Your task to perform on an android device: open app "Google Sheets" (install if not already installed) Image 0: 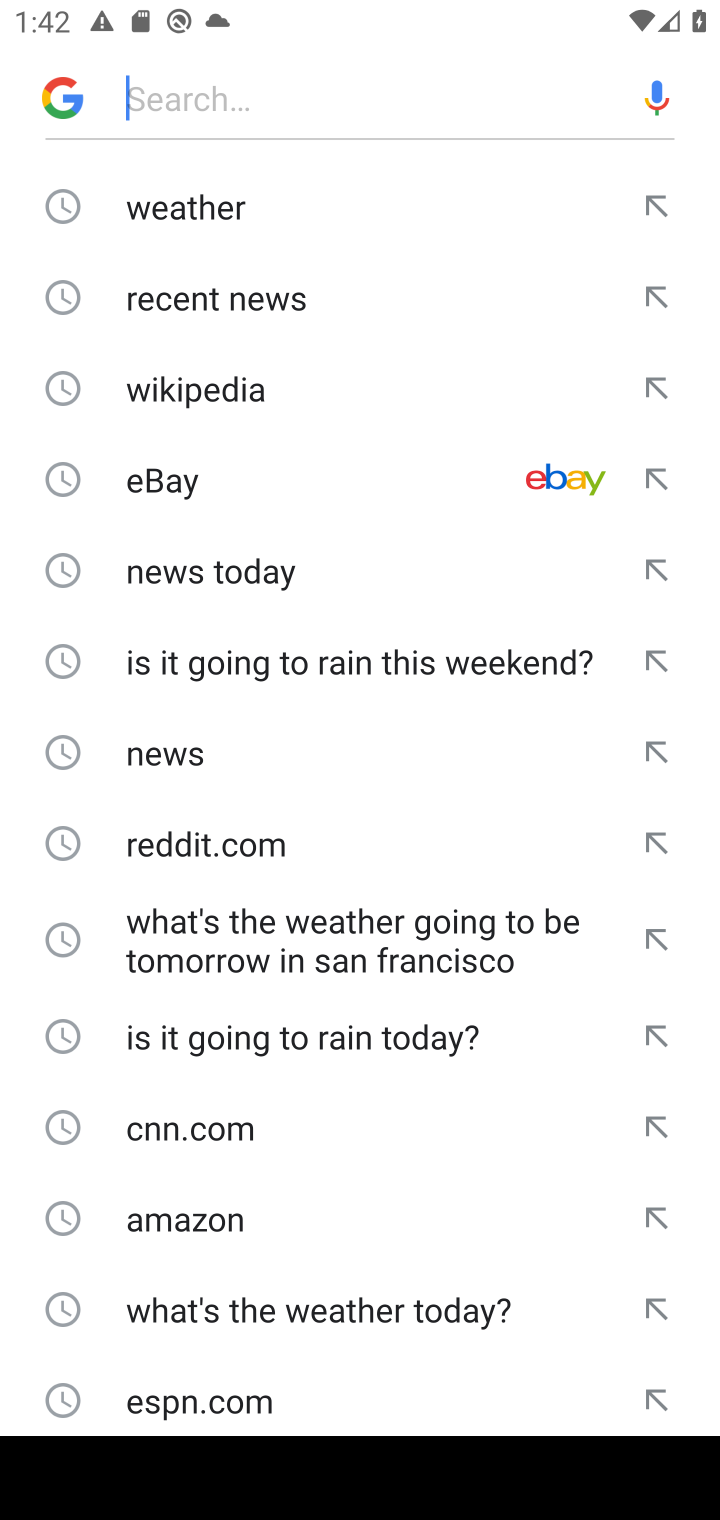
Step 0: press home button
Your task to perform on an android device: open app "Google Sheets" (install if not already installed) Image 1: 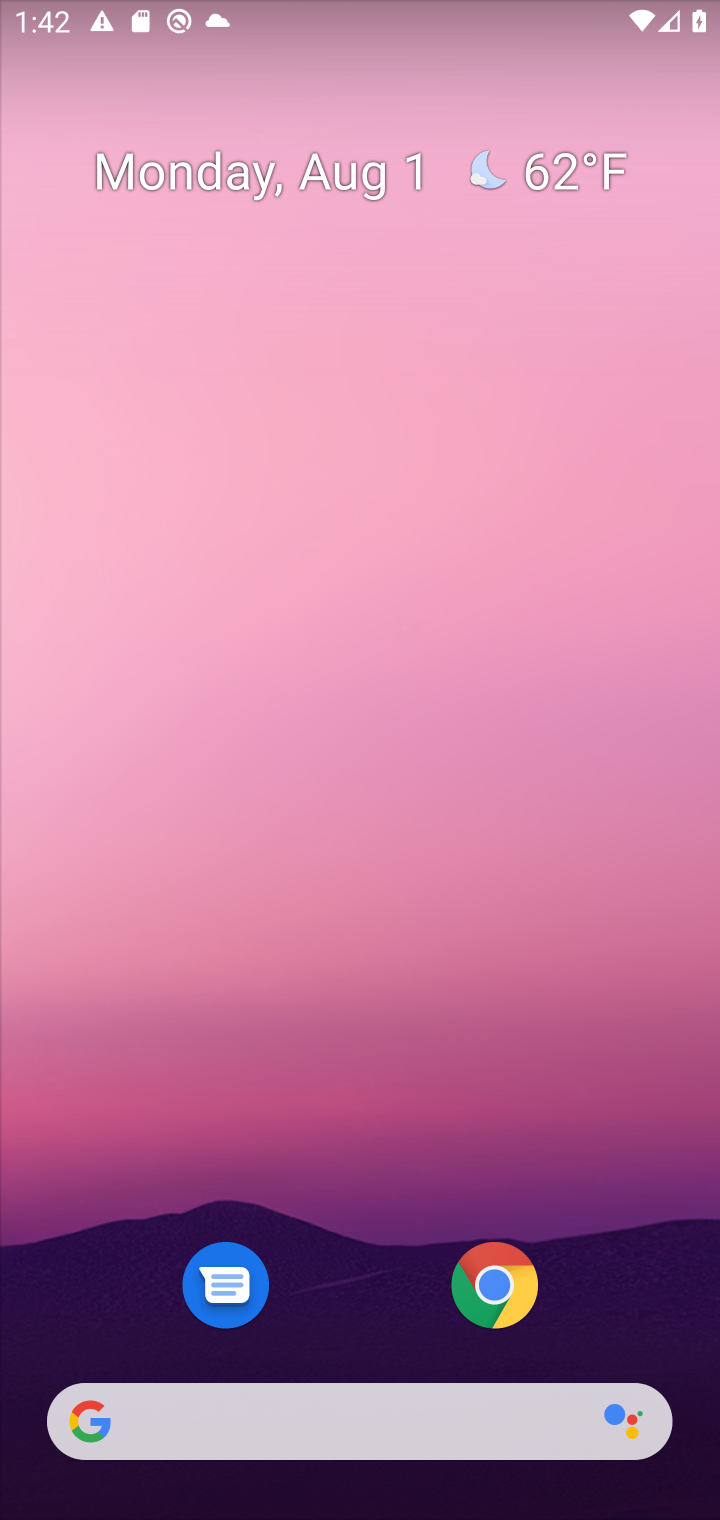
Step 1: drag from (296, 1029) to (229, 0)
Your task to perform on an android device: open app "Google Sheets" (install if not already installed) Image 2: 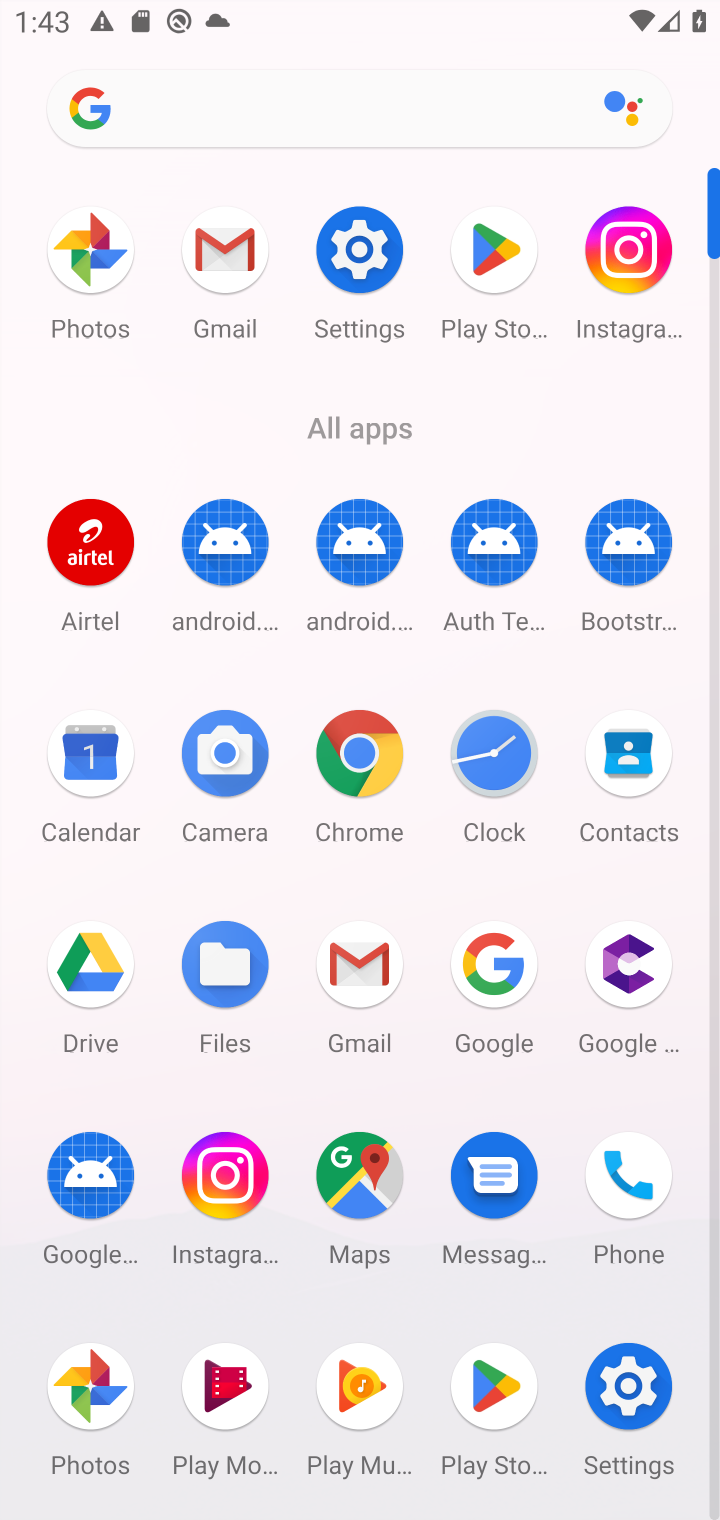
Step 2: click (494, 256)
Your task to perform on an android device: open app "Google Sheets" (install if not already installed) Image 3: 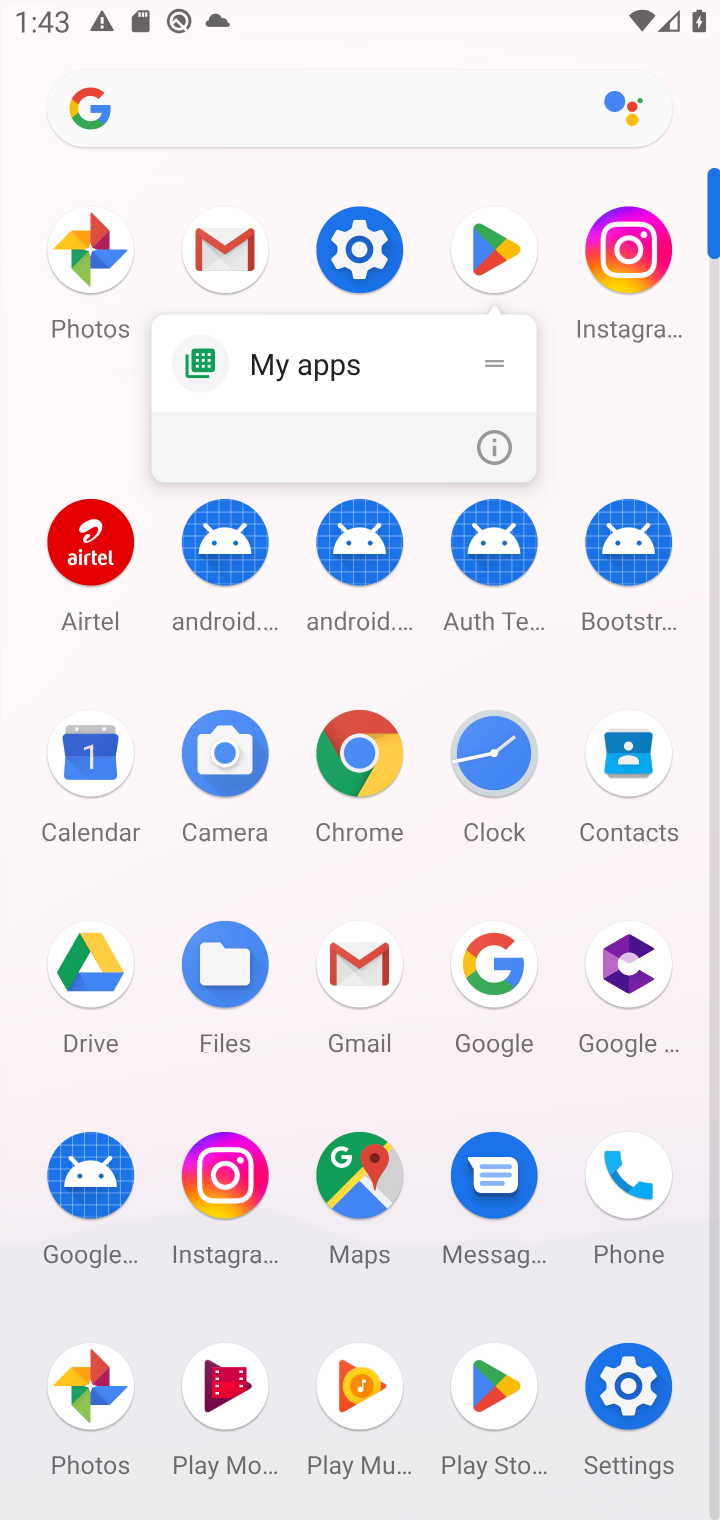
Step 3: click (470, 253)
Your task to perform on an android device: open app "Google Sheets" (install if not already installed) Image 4: 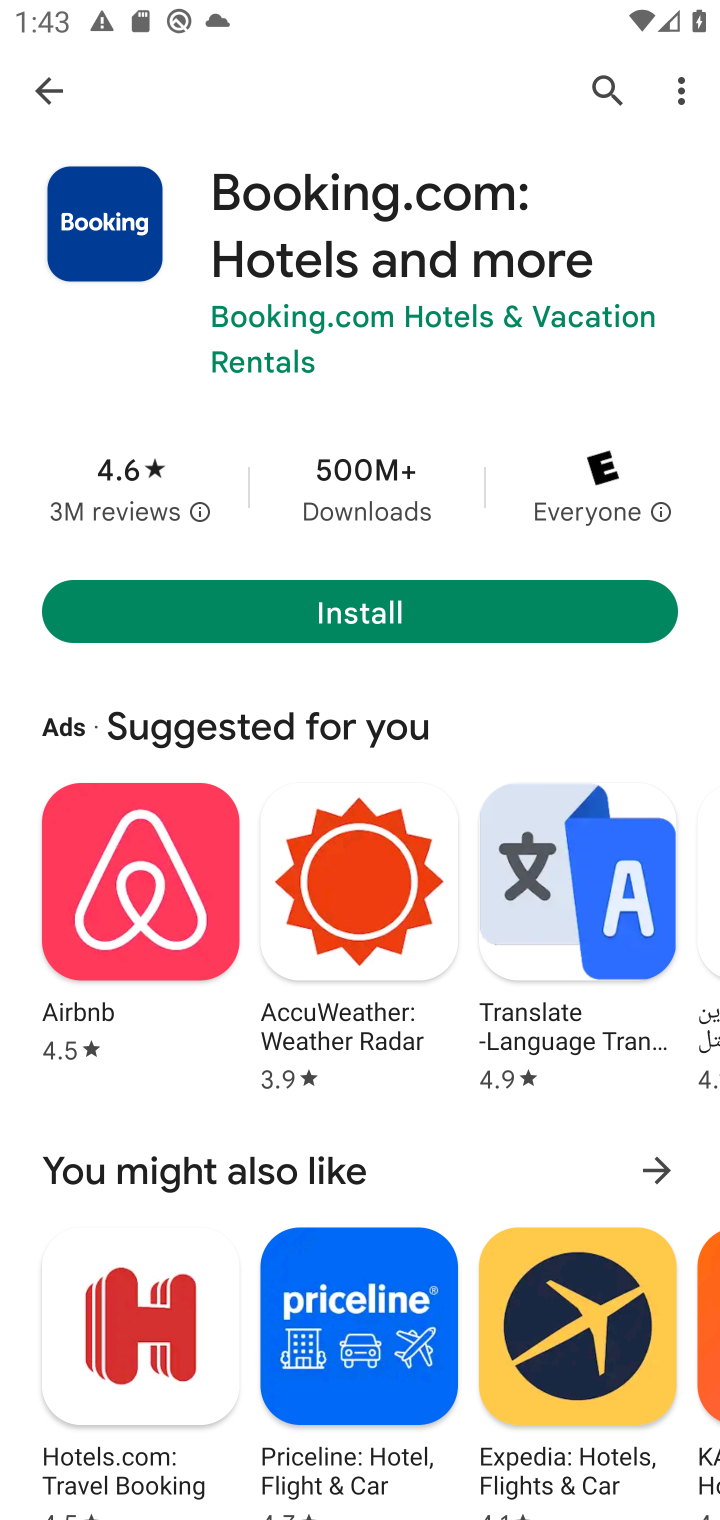
Step 4: click (606, 103)
Your task to perform on an android device: open app "Google Sheets" (install if not already installed) Image 5: 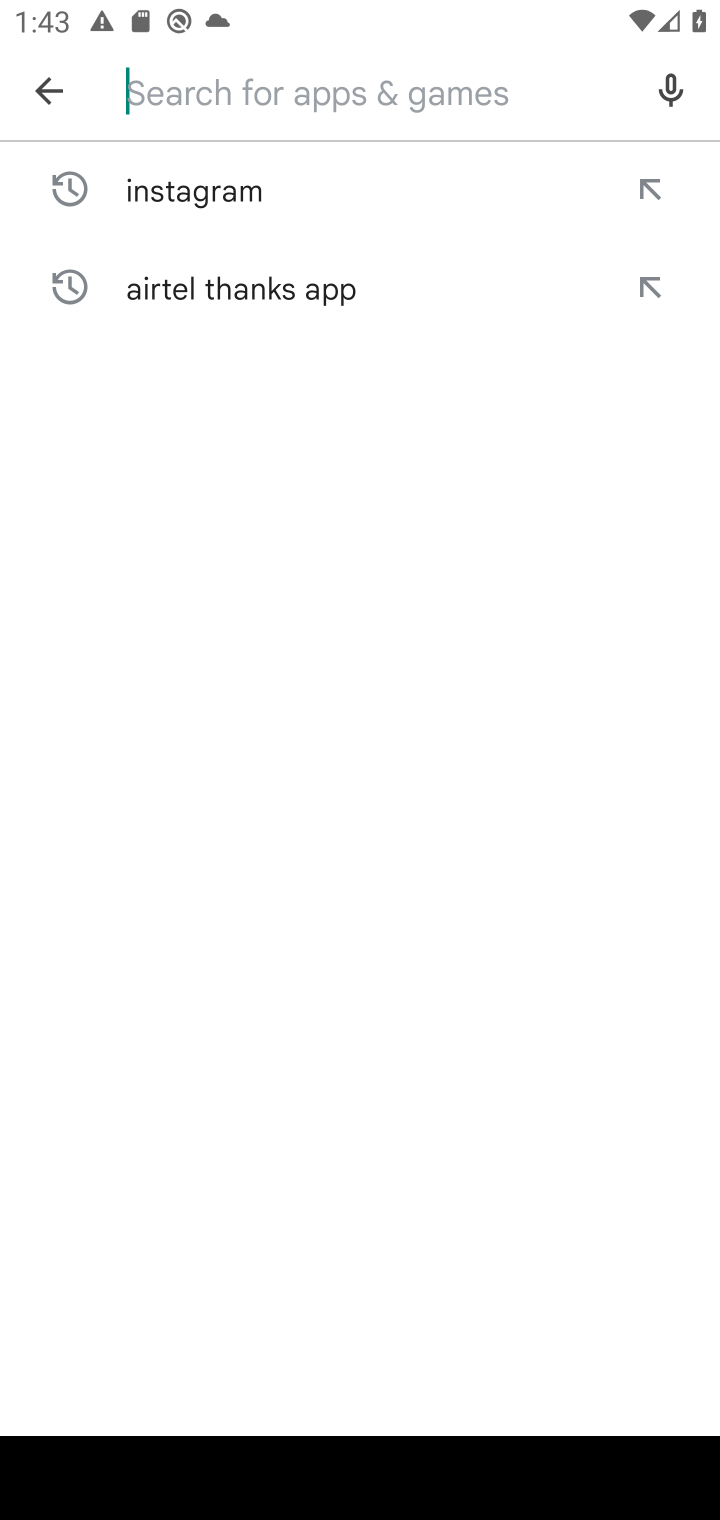
Step 5: type "Google Sheets"
Your task to perform on an android device: open app "Google Sheets" (install if not already installed) Image 6: 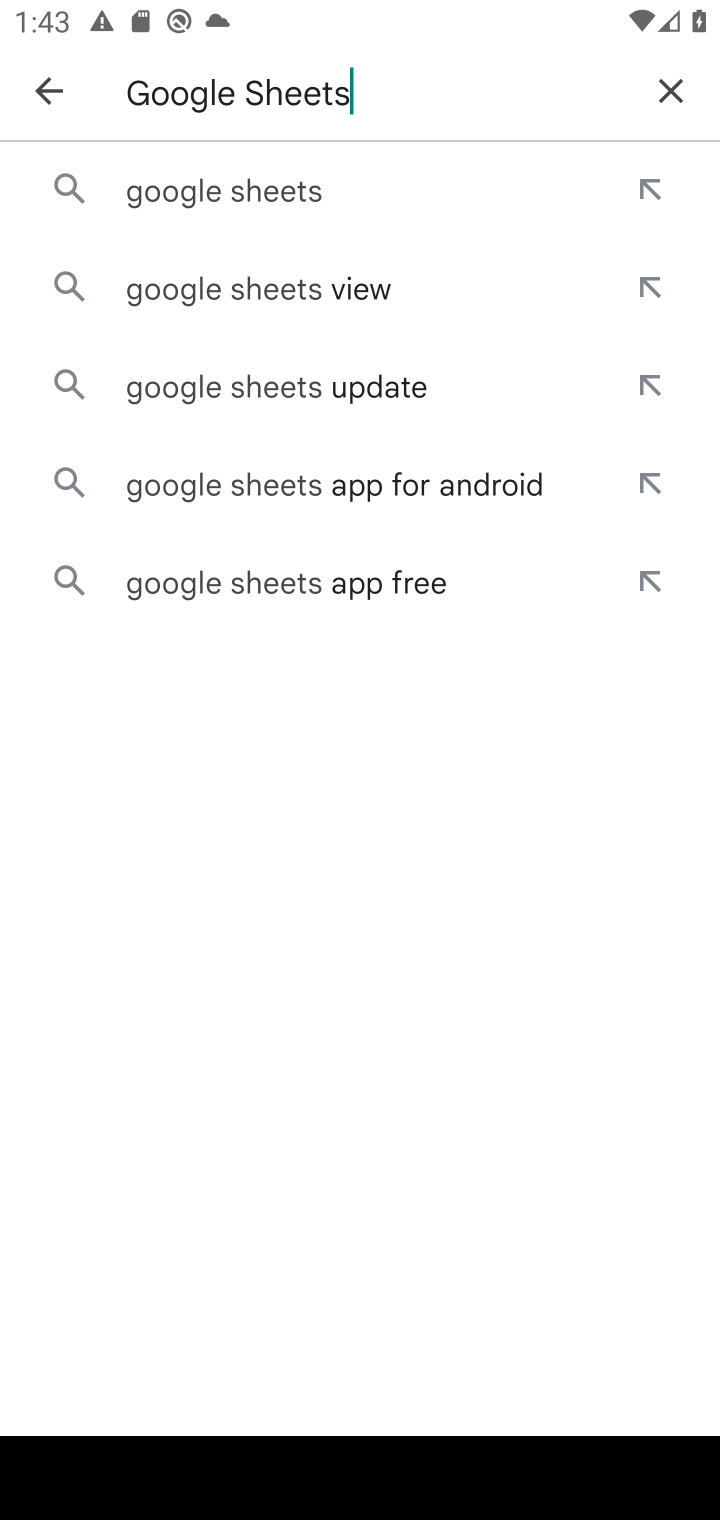
Step 6: click (283, 197)
Your task to perform on an android device: open app "Google Sheets" (install if not already installed) Image 7: 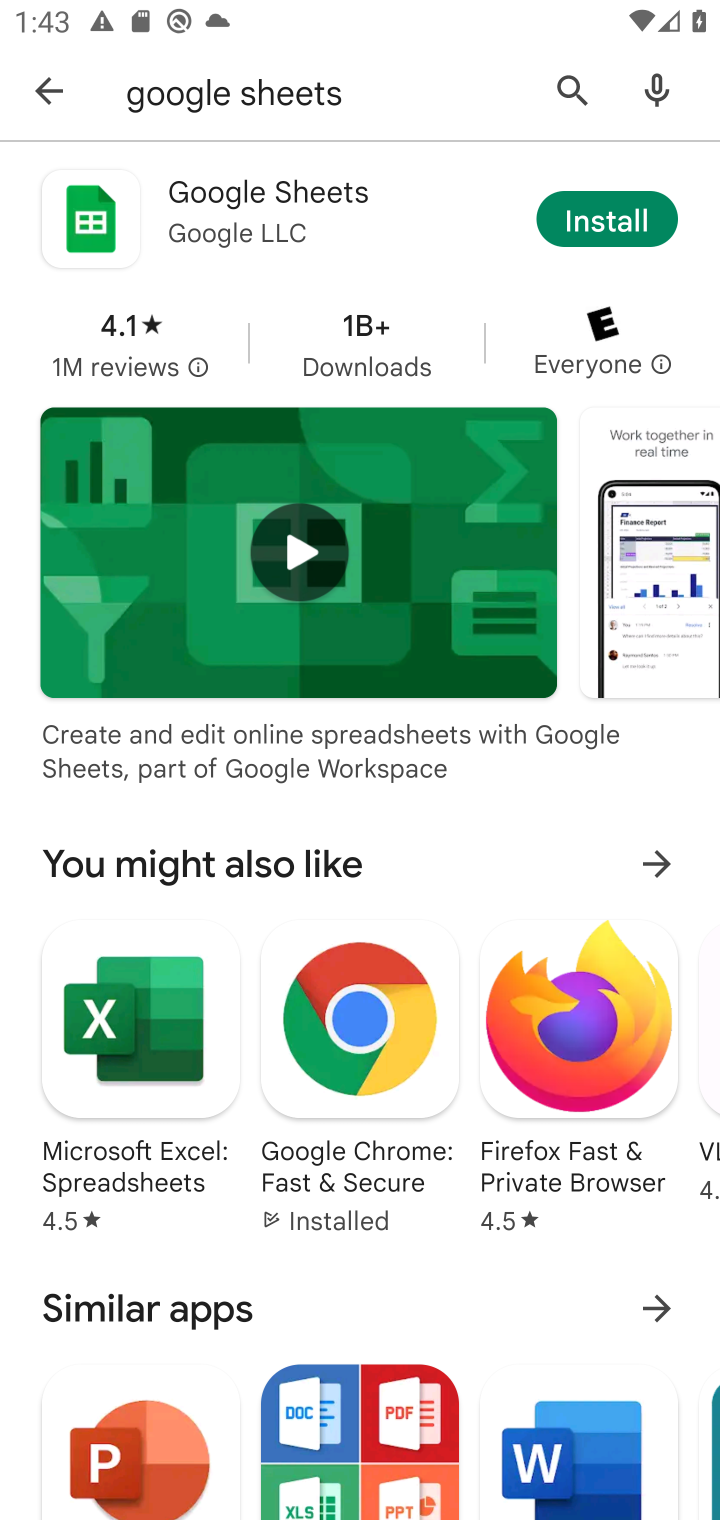
Step 7: click (589, 232)
Your task to perform on an android device: open app "Google Sheets" (install if not already installed) Image 8: 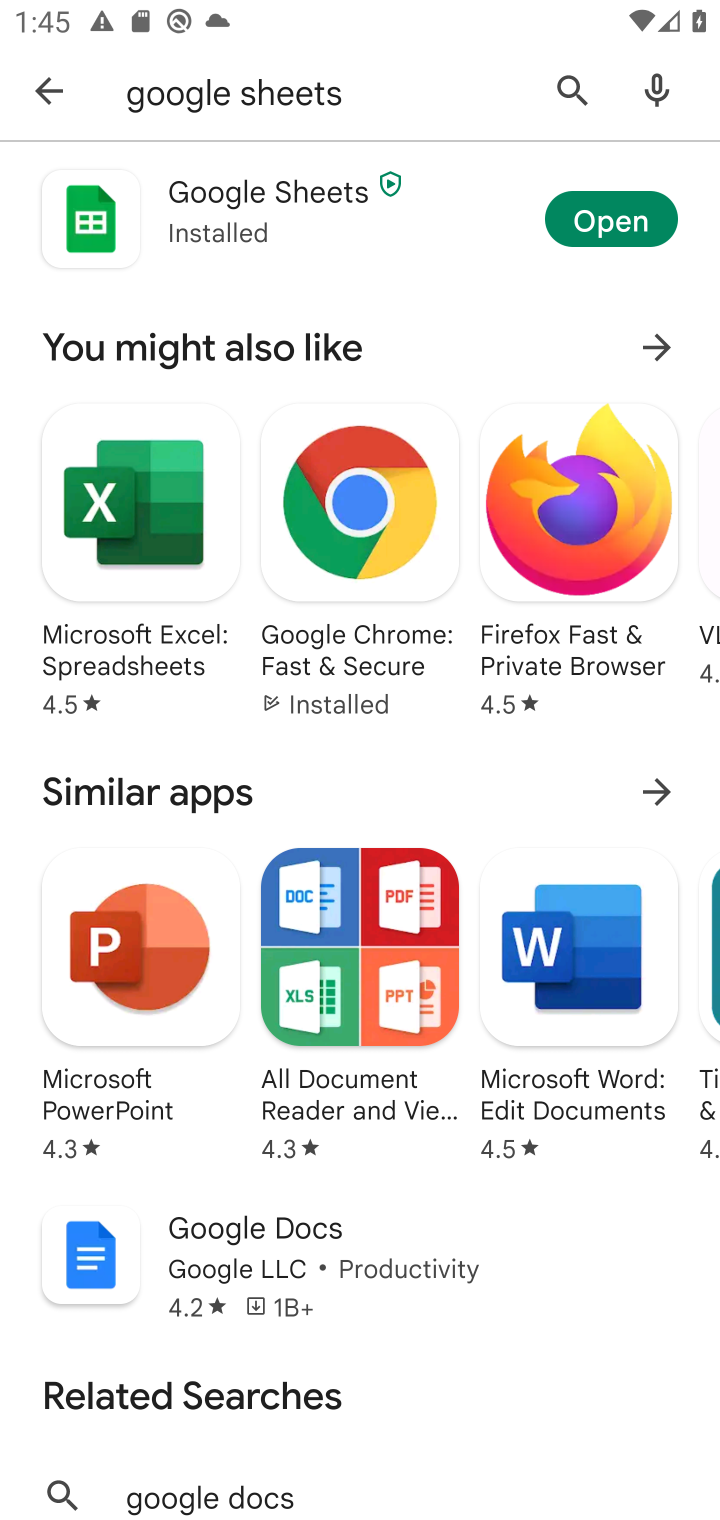
Step 8: click (577, 224)
Your task to perform on an android device: open app "Google Sheets" (install if not already installed) Image 9: 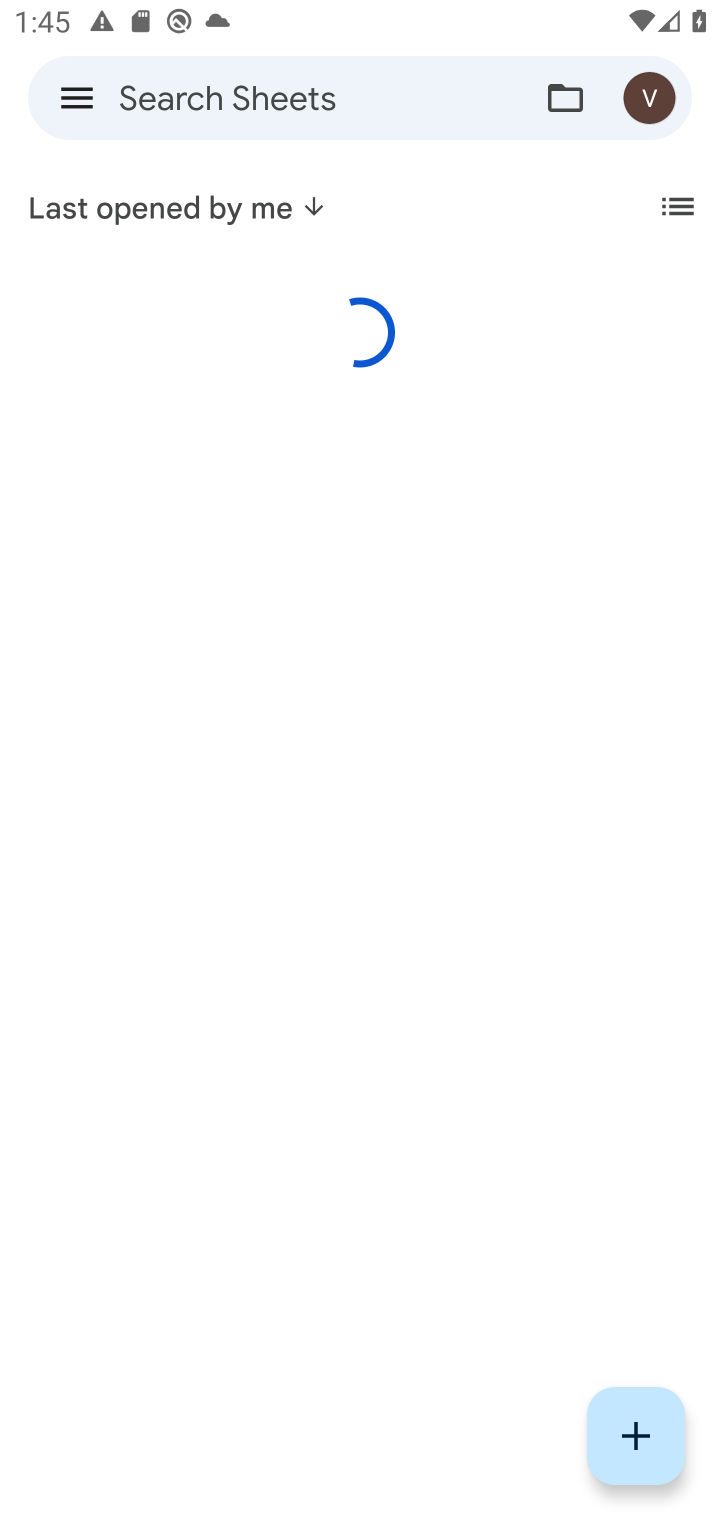
Step 9: task complete